Your task to perform on an android device: Go to eBay Image 0: 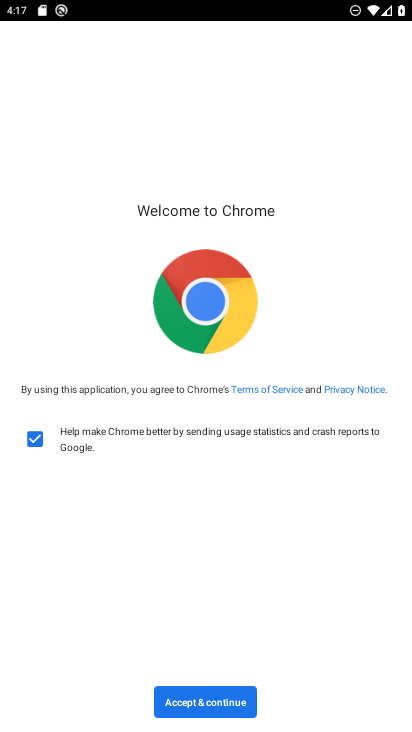
Step 0: click (210, 701)
Your task to perform on an android device: Go to eBay Image 1: 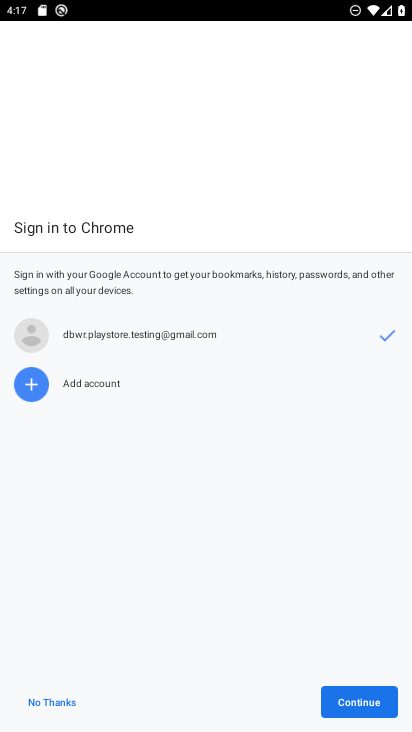
Step 1: click (209, 702)
Your task to perform on an android device: Go to eBay Image 2: 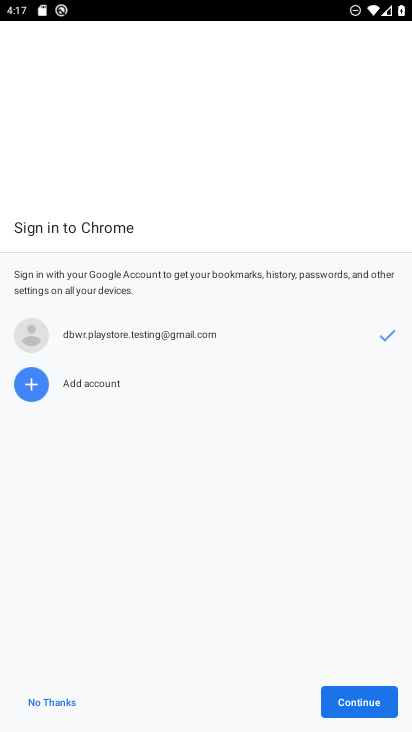
Step 2: click (209, 702)
Your task to perform on an android device: Go to eBay Image 3: 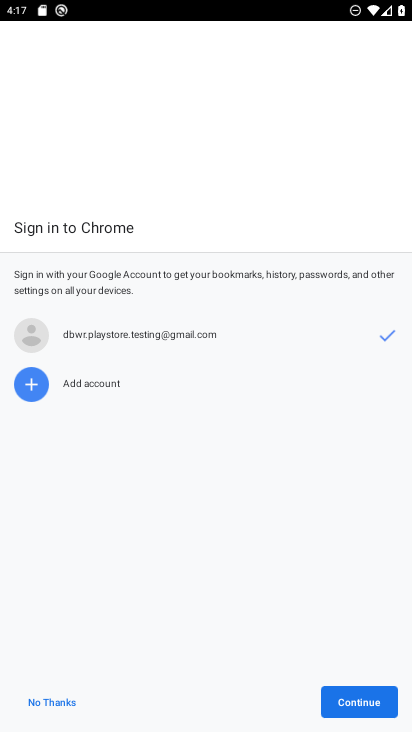
Step 3: click (381, 706)
Your task to perform on an android device: Go to eBay Image 4: 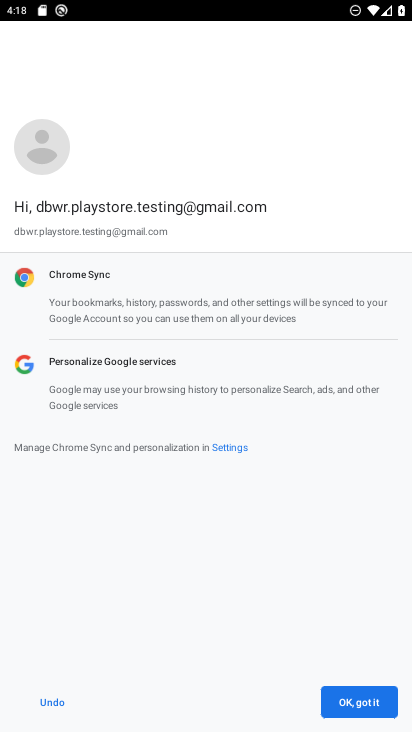
Step 4: click (361, 701)
Your task to perform on an android device: Go to eBay Image 5: 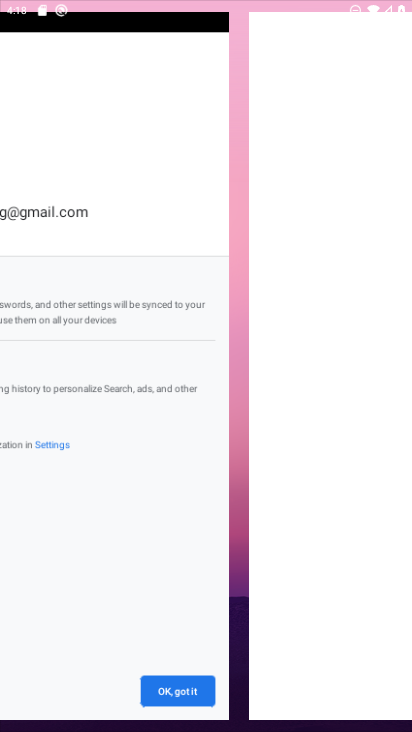
Step 5: click (361, 701)
Your task to perform on an android device: Go to eBay Image 6: 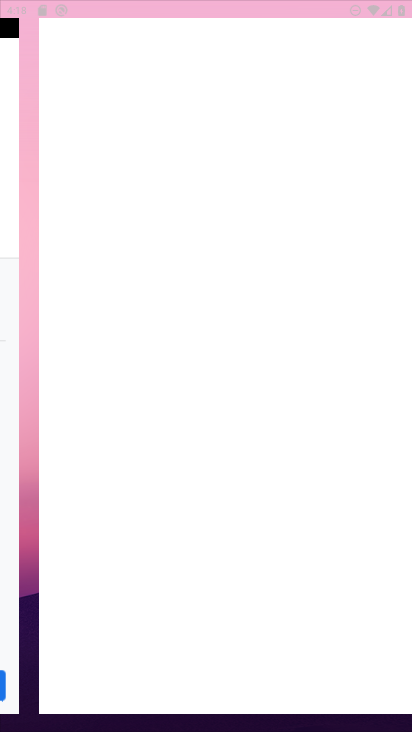
Step 6: click (361, 701)
Your task to perform on an android device: Go to eBay Image 7: 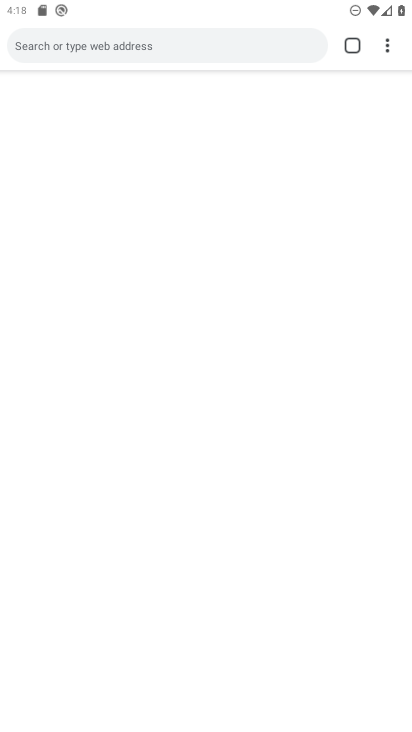
Step 7: click (363, 702)
Your task to perform on an android device: Go to eBay Image 8: 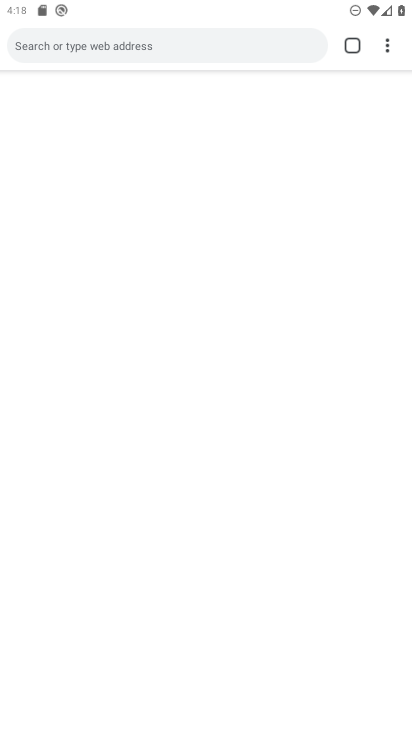
Step 8: click (363, 705)
Your task to perform on an android device: Go to eBay Image 9: 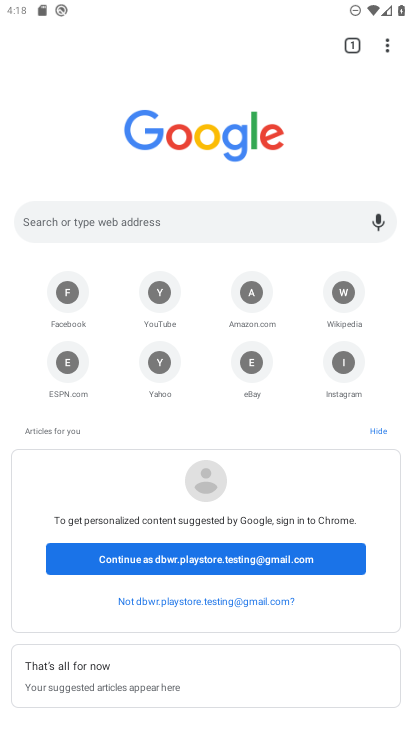
Step 9: click (353, 698)
Your task to perform on an android device: Go to eBay Image 10: 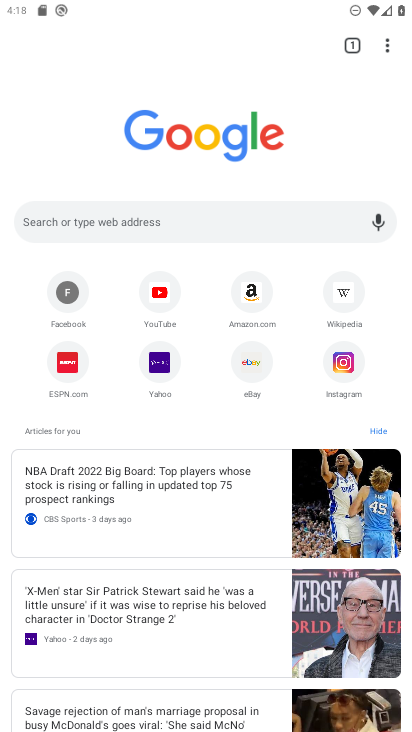
Step 10: click (251, 362)
Your task to perform on an android device: Go to eBay Image 11: 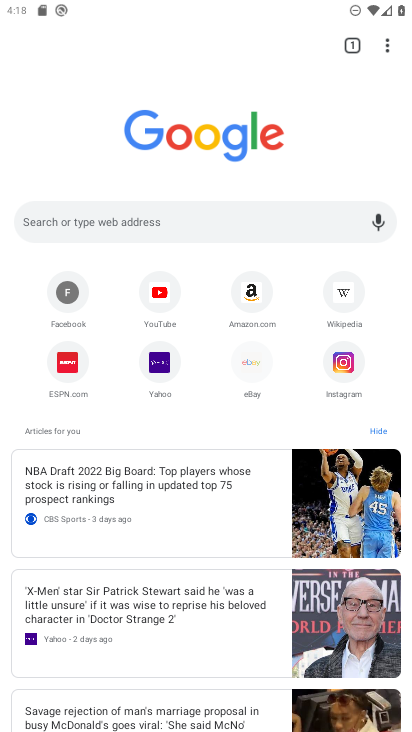
Step 11: click (251, 362)
Your task to perform on an android device: Go to eBay Image 12: 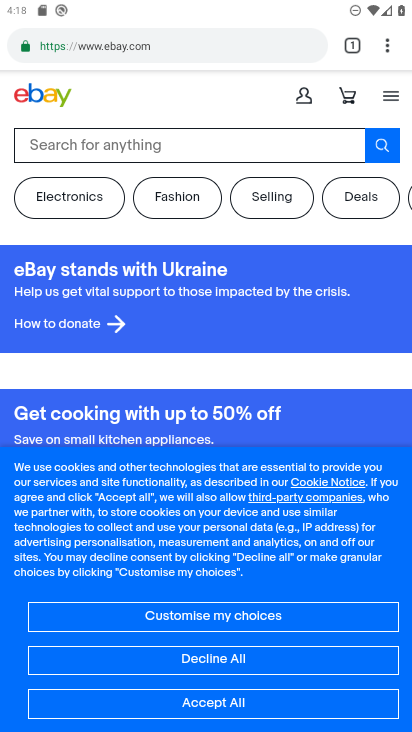
Step 12: task complete